Your task to perform on an android device: See recent photos Image 0: 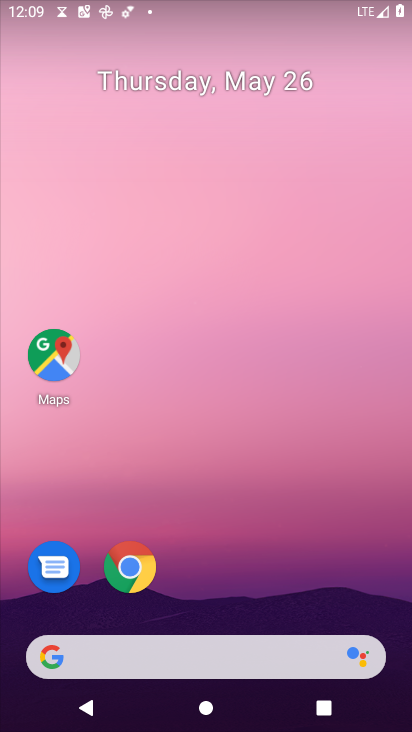
Step 0: drag from (202, 557) to (179, 39)
Your task to perform on an android device: See recent photos Image 1: 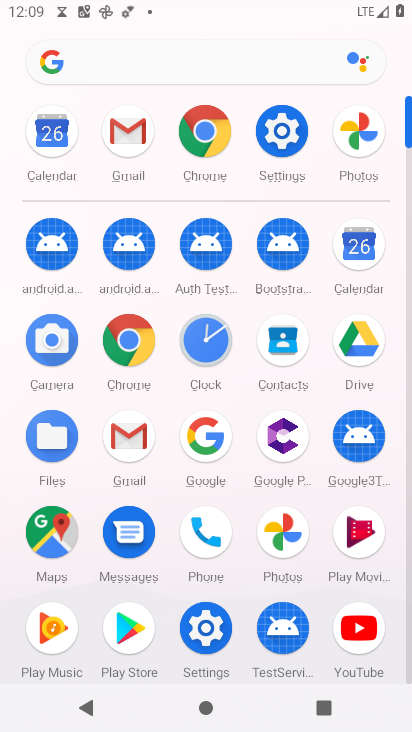
Step 1: click (289, 538)
Your task to perform on an android device: See recent photos Image 2: 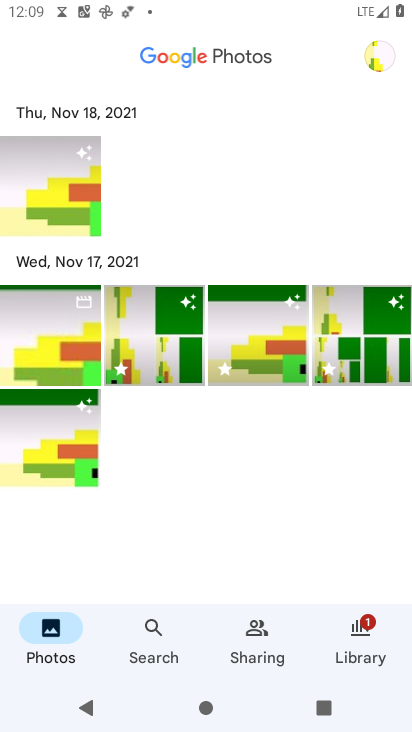
Step 2: task complete